Your task to perform on an android device: Open display settings Image 0: 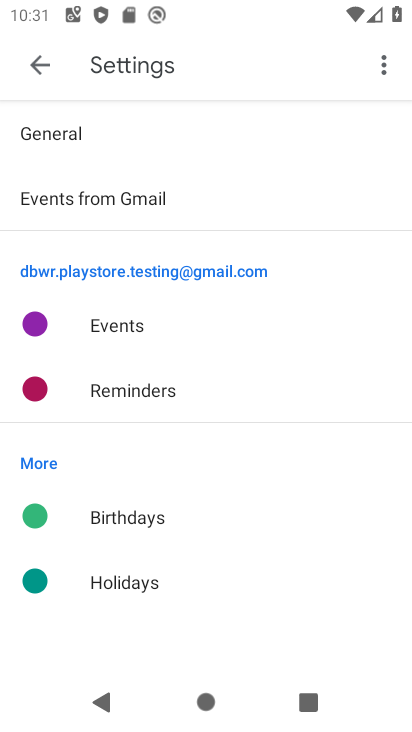
Step 0: press home button
Your task to perform on an android device: Open display settings Image 1: 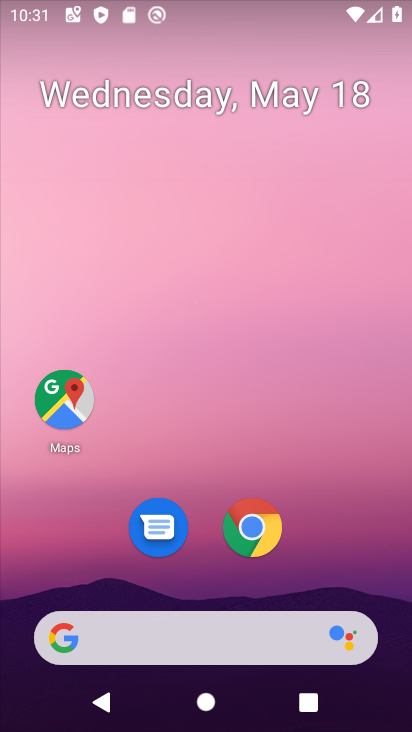
Step 1: drag from (340, 564) to (223, 21)
Your task to perform on an android device: Open display settings Image 2: 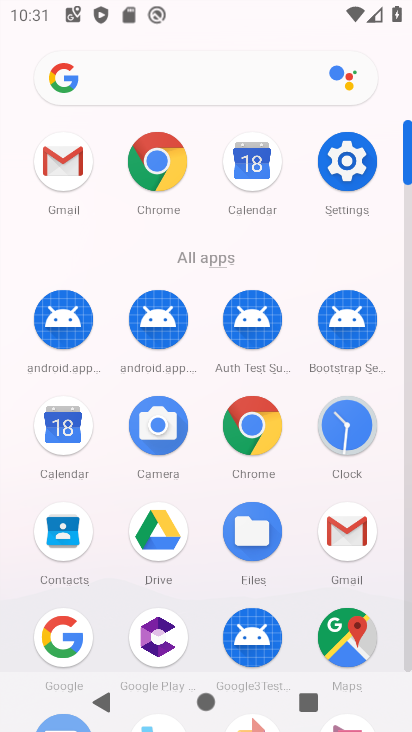
Step 2: click (349, 160)
Your task to perform on an android device: Open display settings Image 3: 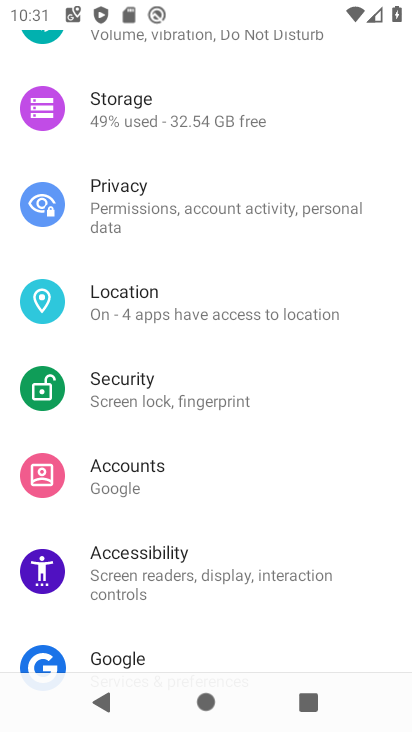
Step 3: drag from (168, 229) to (101, 441)
Your task to perform on an android device: Open display settings Image 4: 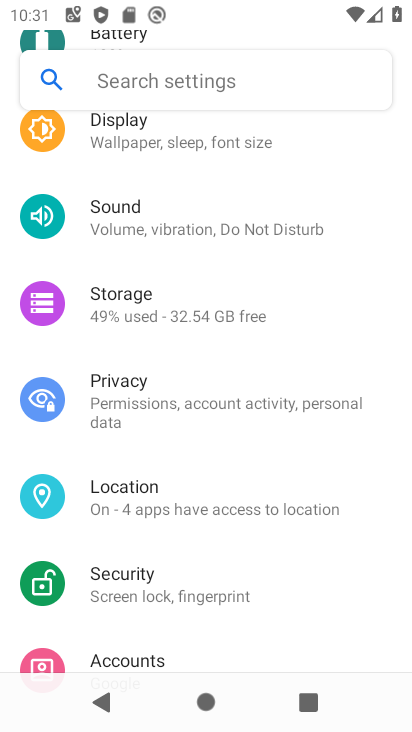
Step 4: click (184, 151)
Your task to perform on an android device: Open display settings Image 5: 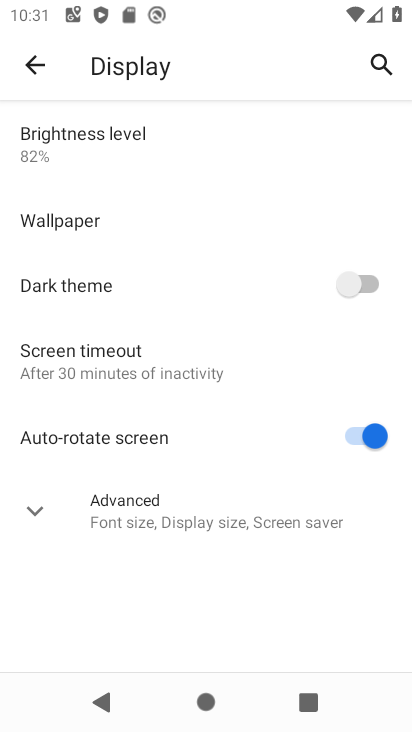
Step 5: task complete